Your task to perform on an android device: What's the latest tech news? Image 0: 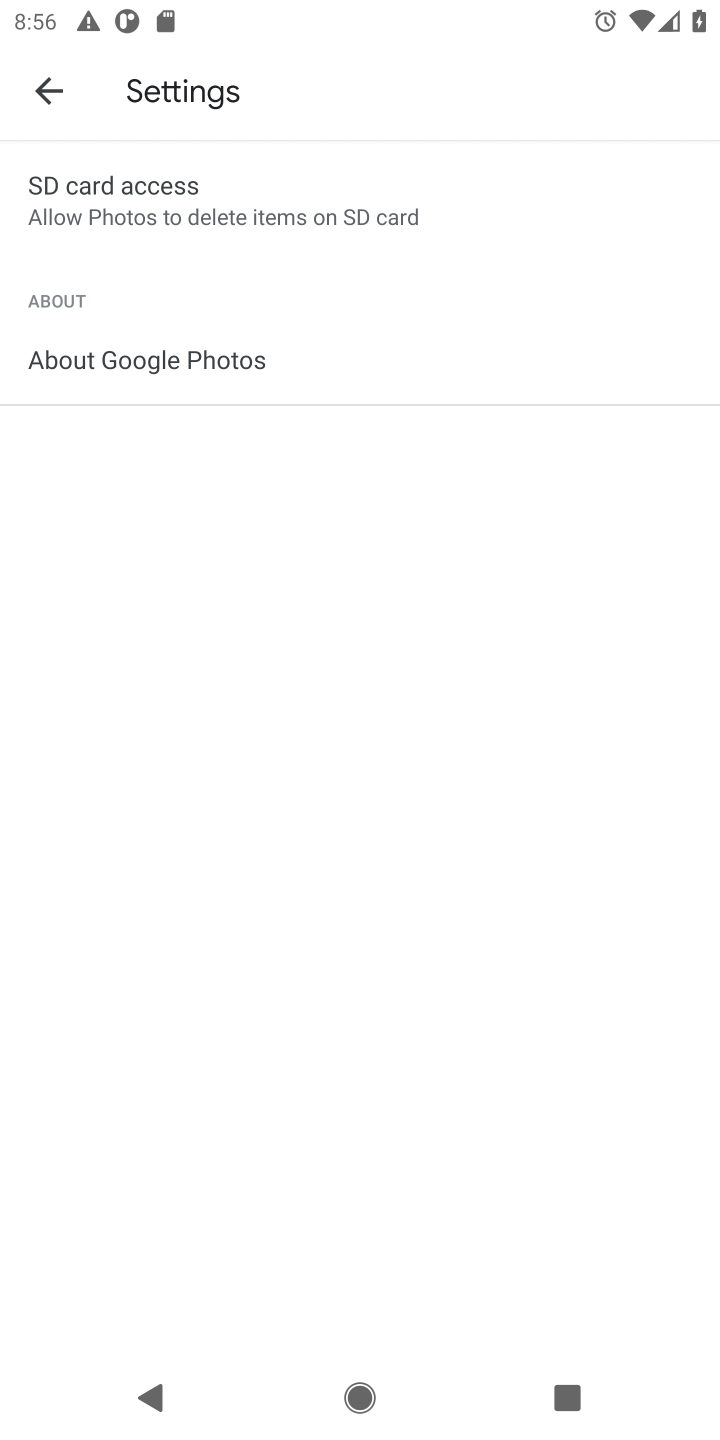
Step 0: press home button
Your task to perform on an android device: What's the latest tech news? Image 1: 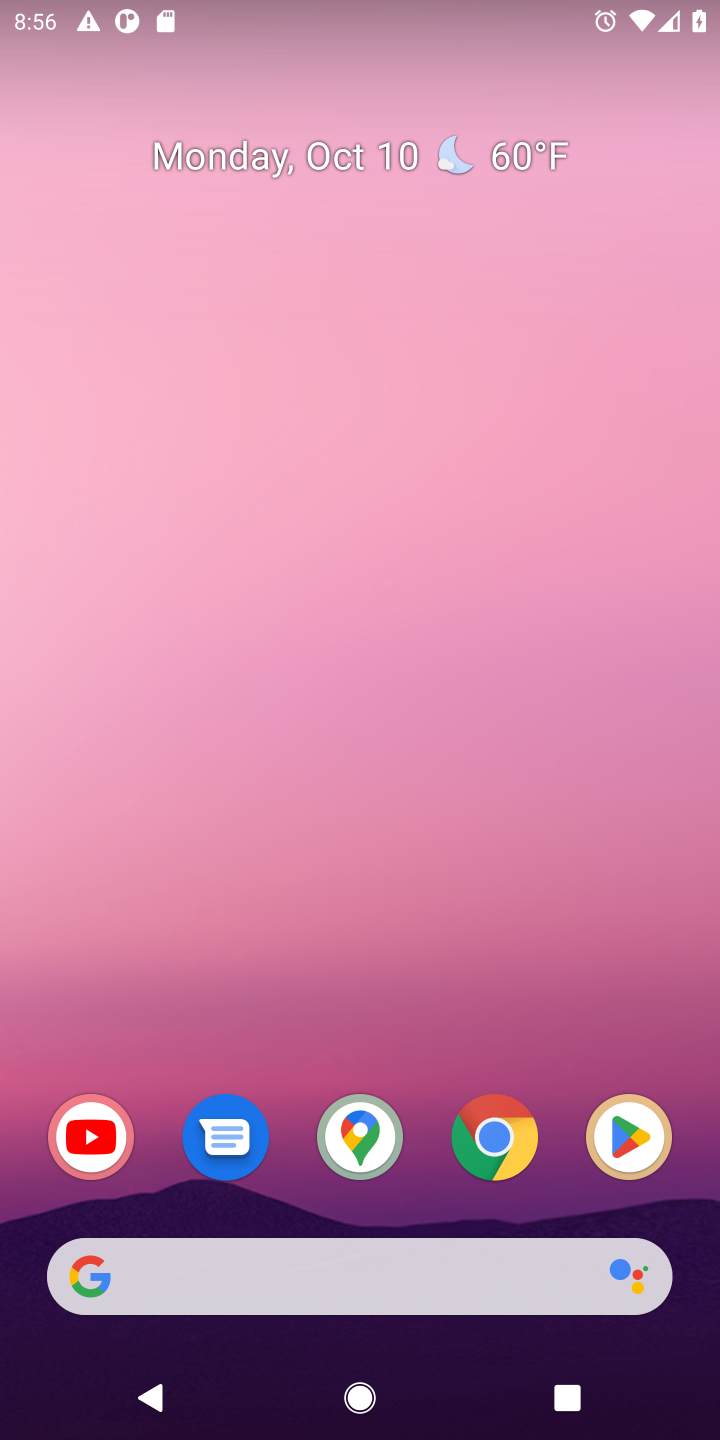
Step 1: click (492, 1134)
Your task to perform on an android device: What's the latest tech news? Image 2: 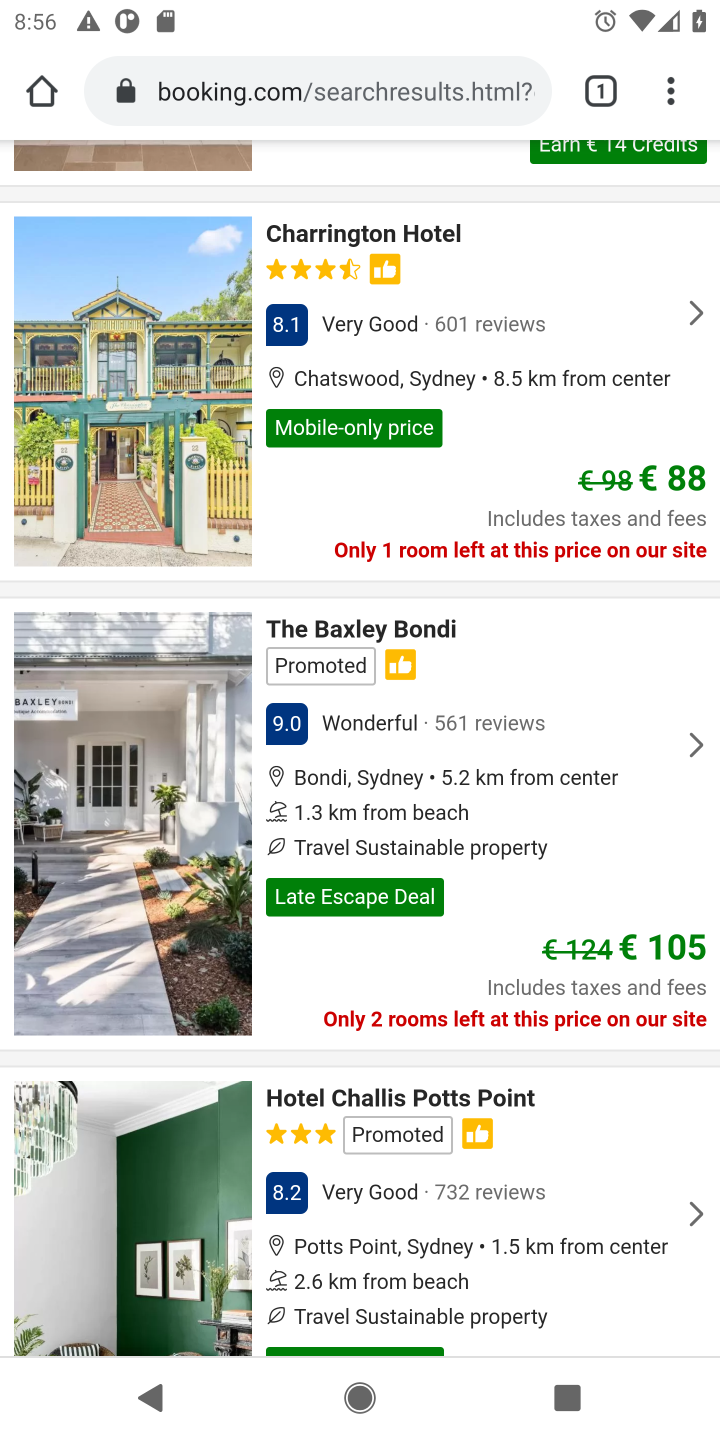
Step 2: click (341, 74)
Your task to perform on an android device: What's the latest tech news? Image 3: 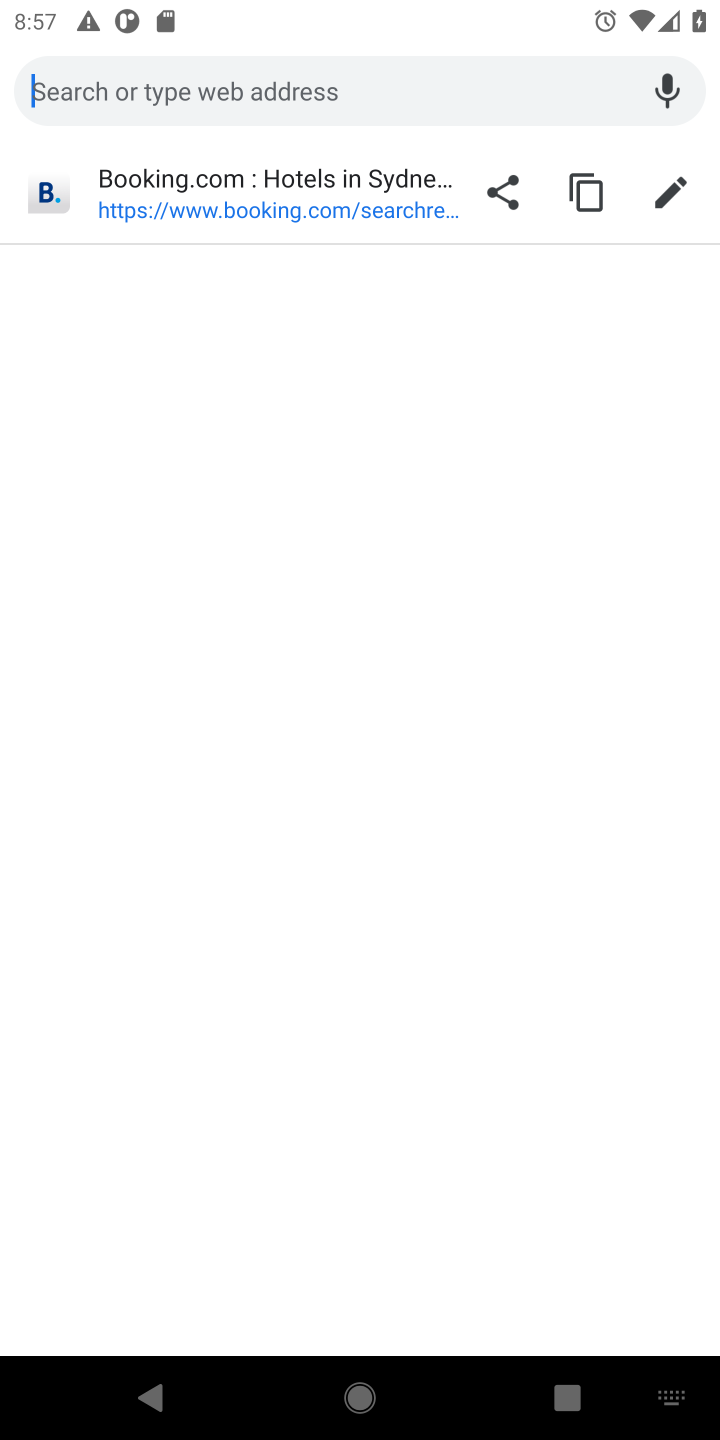
Step 3: type "latest tech news"
Your task to perform on an android device: What's the latest tech news? Image 4: 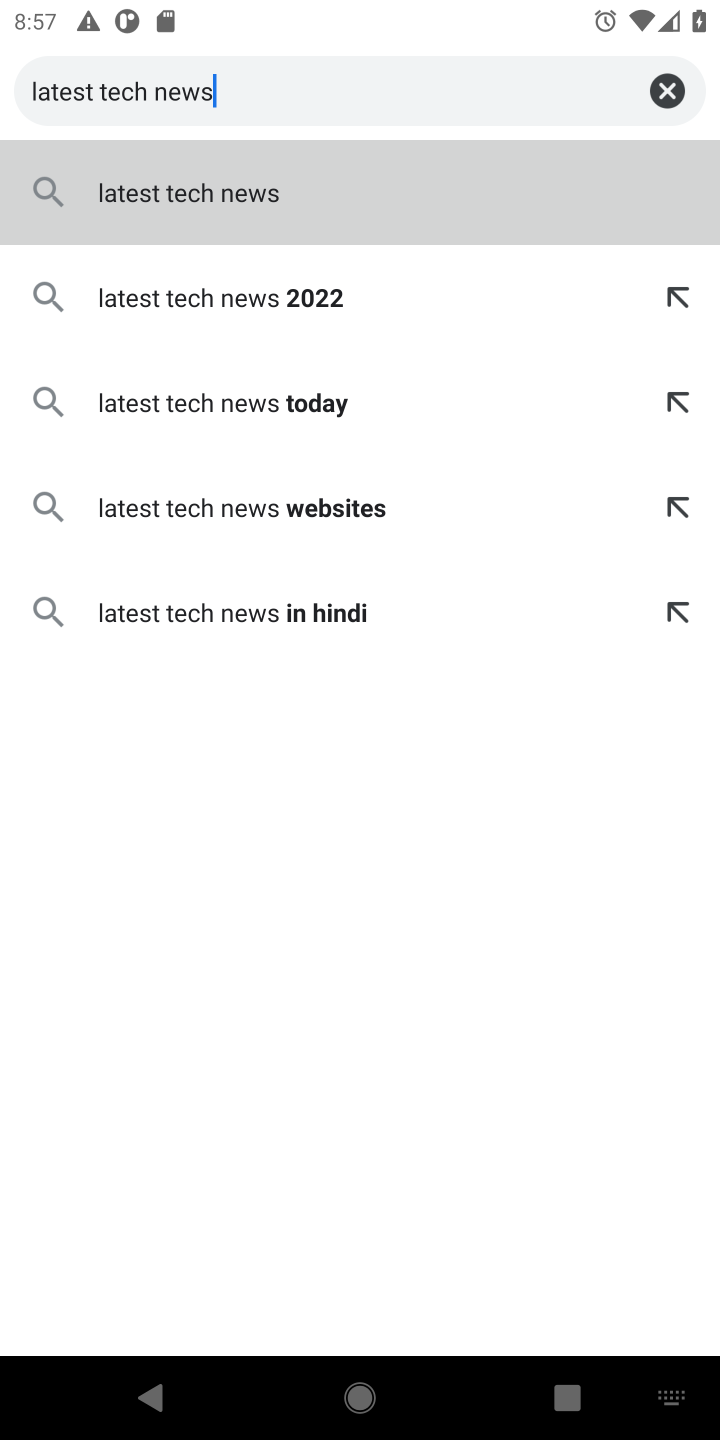
Step 4: click (192, 182)
Your task to perform on an android device: What's the latest tech news? Image 5: 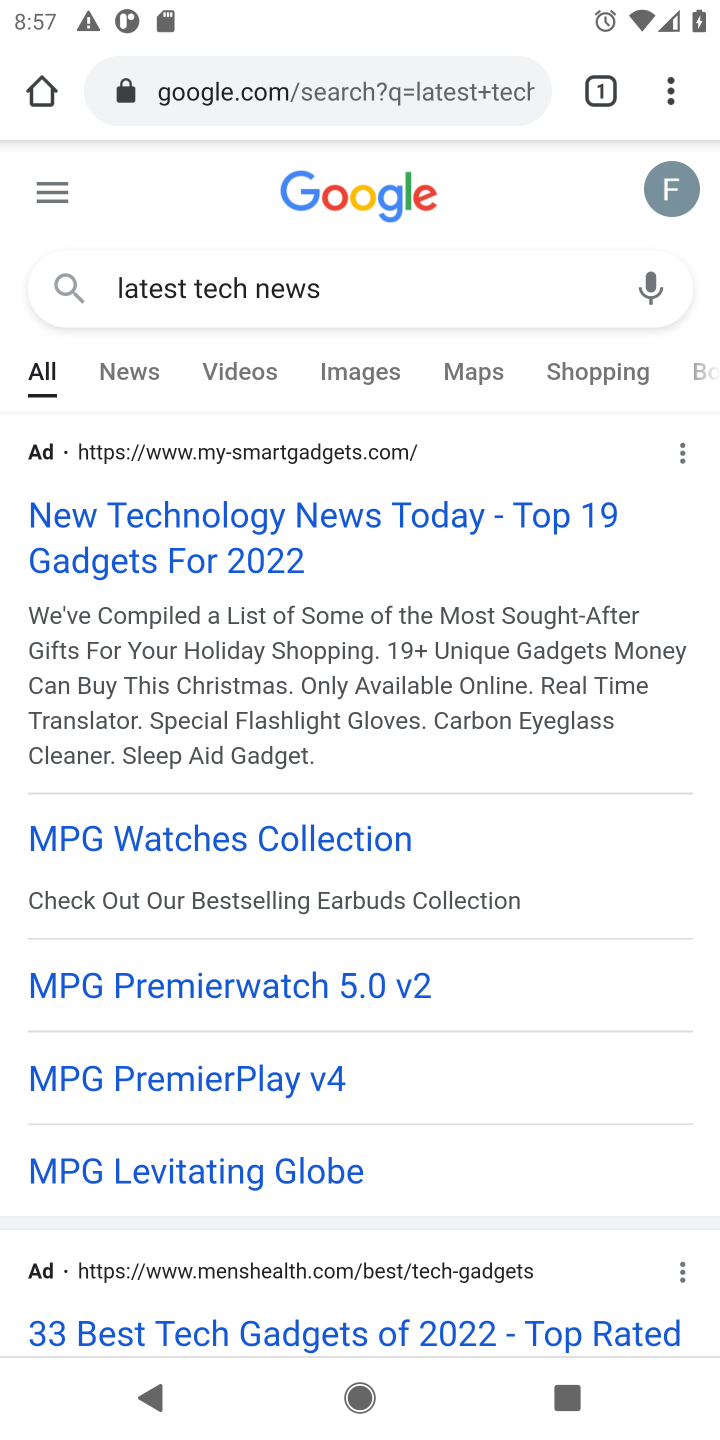
Step 5: click (175, 503)
Your task to perform on an android device: What's the latest tech news? Image 6: 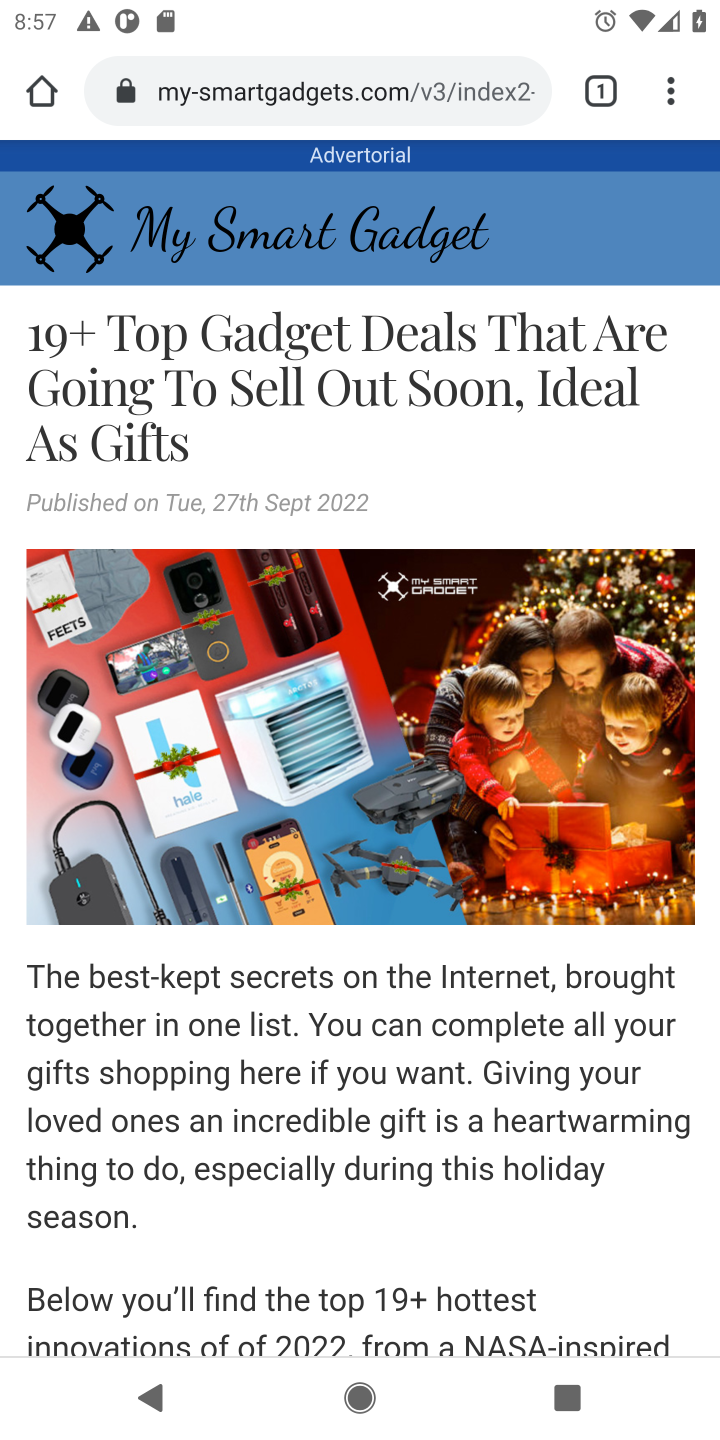
Step 6: task complete